Your task to perform on an android device: turn on priority inbox in the gmail app Image 0: 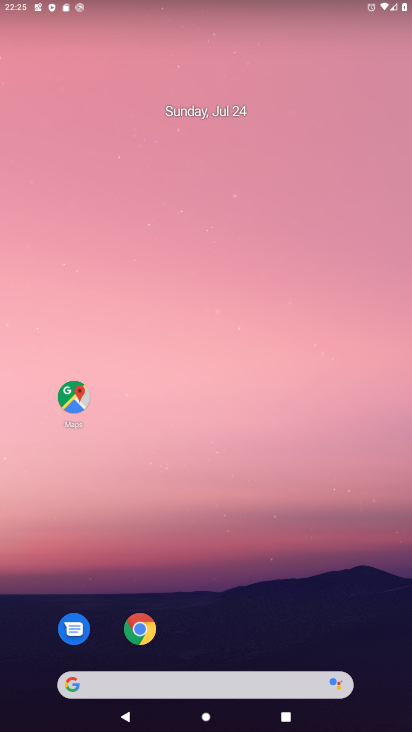
Step 0: drag from (196, 624) to (225, 321)
Your task to perform on an android device: turn on priority inbox in the gmail app Image 1: 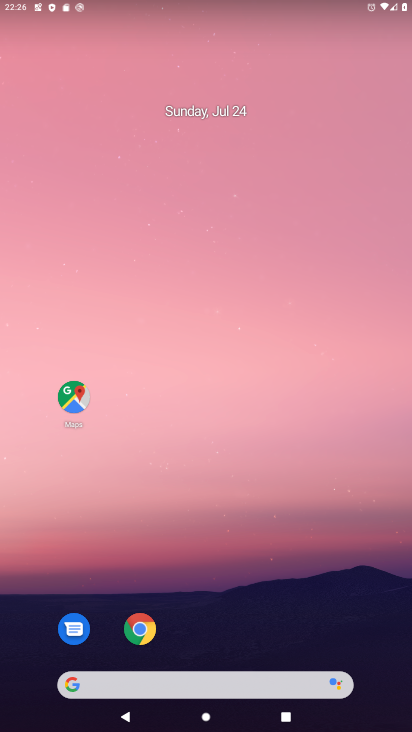
Step 1: drag from (201, 634) to (266, 175)
Your task to perform on an android device: turn on priority inbox in the gmail app Image 2: 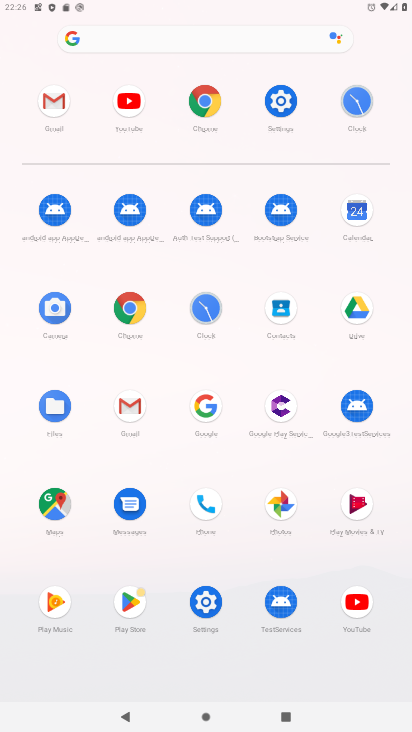
Step 2: click (128, 403)
Your task to perform on an android device: turn on priority inbox in the gmail app Image 3: 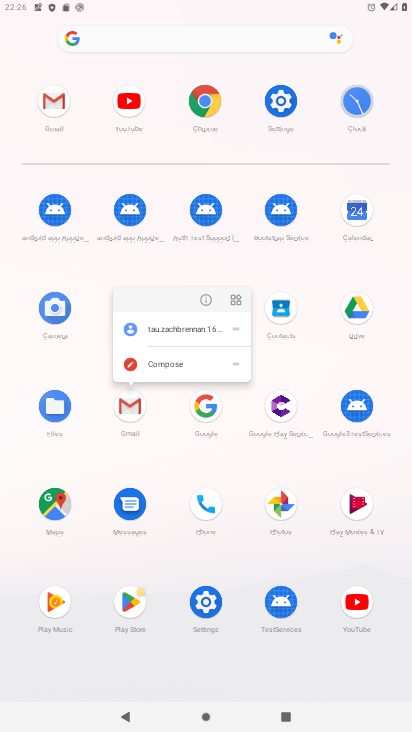
Step 3: click (202, 292)
Your task to perform on an android device: turn on priority inbox in the gmail app Image 4: 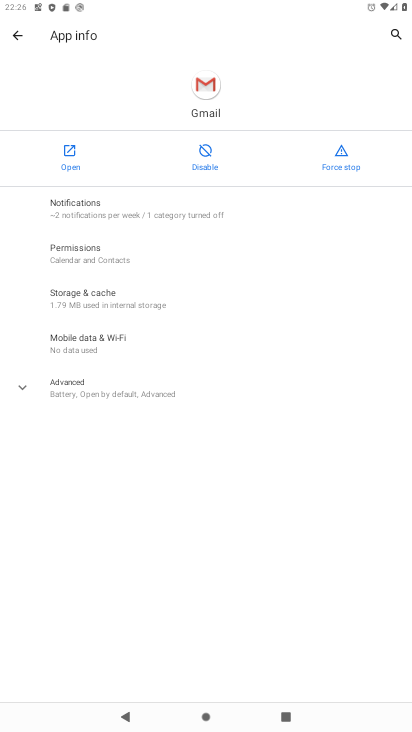
Step 4: click (63, 160)
Your task to perform on an android device: turn on priority inbox in the gmail app Image 5: 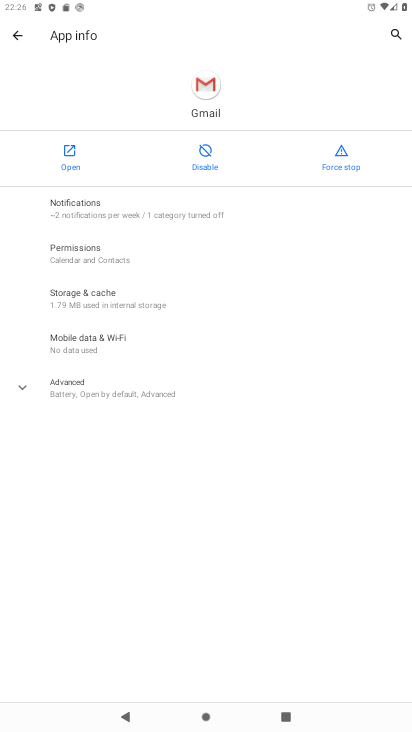
Step 5: click (63, 160)
Your task to perform on an android device: turn on priority inbox in the gmail app Image 6: 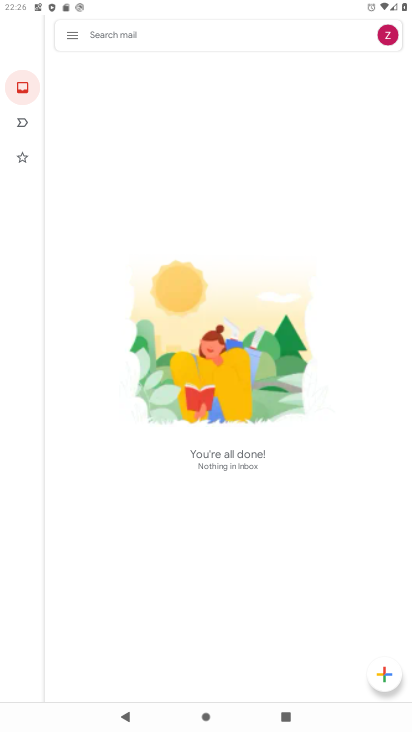
Step 6: drag from (70, 28) to (360, 384)
Your task to perform on an android device: turn on priority inbox in the gmail app Image 7: 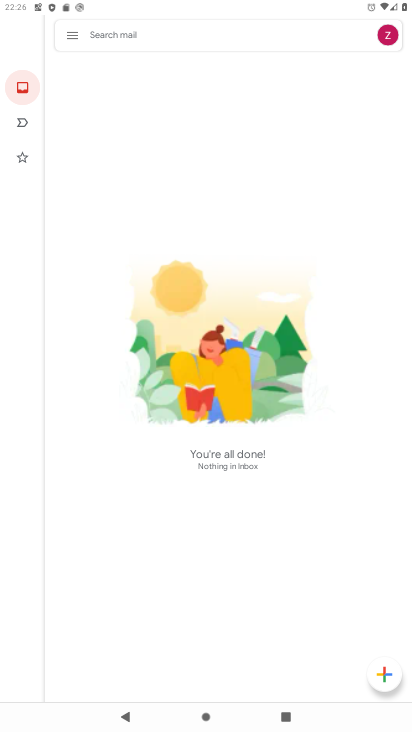
Step 7: click (66, 34)
Your task to perform on an android device: turn on priority inbox in the gmail app Image 8: 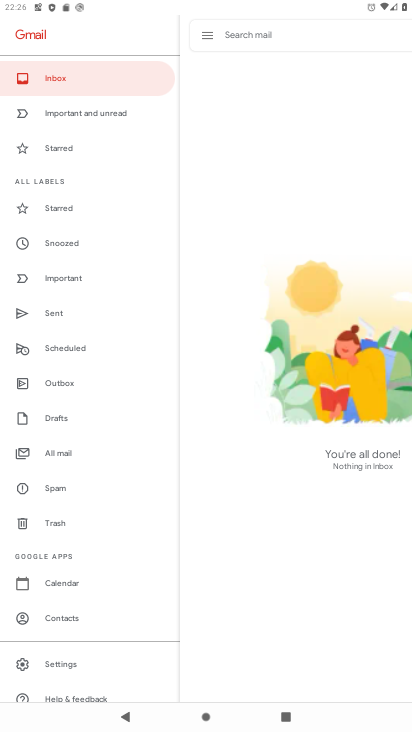
Step 8: click (61, 666)
Your task to perform on an android device: turn on priority inbox in the gmail app Image 9: 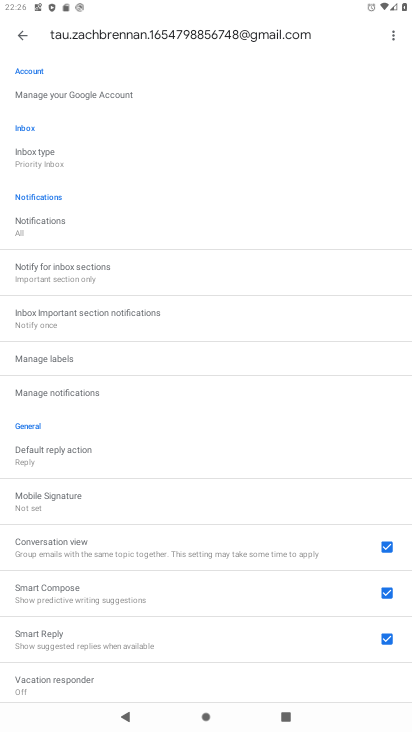
Step 9: click (86, 150)
Your task to perform on an android device: turn on priority inbox in the gmail app Image 10: 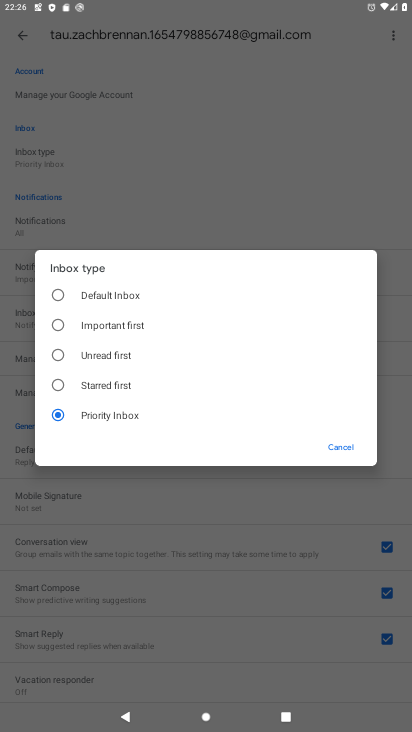
Step 10: click (97, 415)
Your task to perform on an android device: turn on priority inbox in the gmail app Image 11: 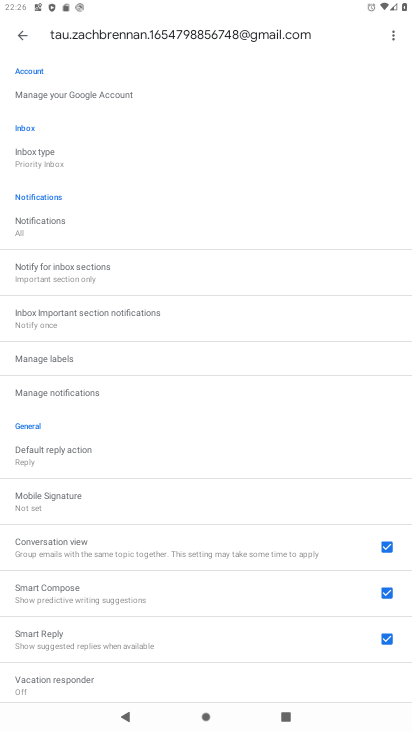
Step 11: task complete